Your task to perform on an android device: star an email in the gmail app Image 0: 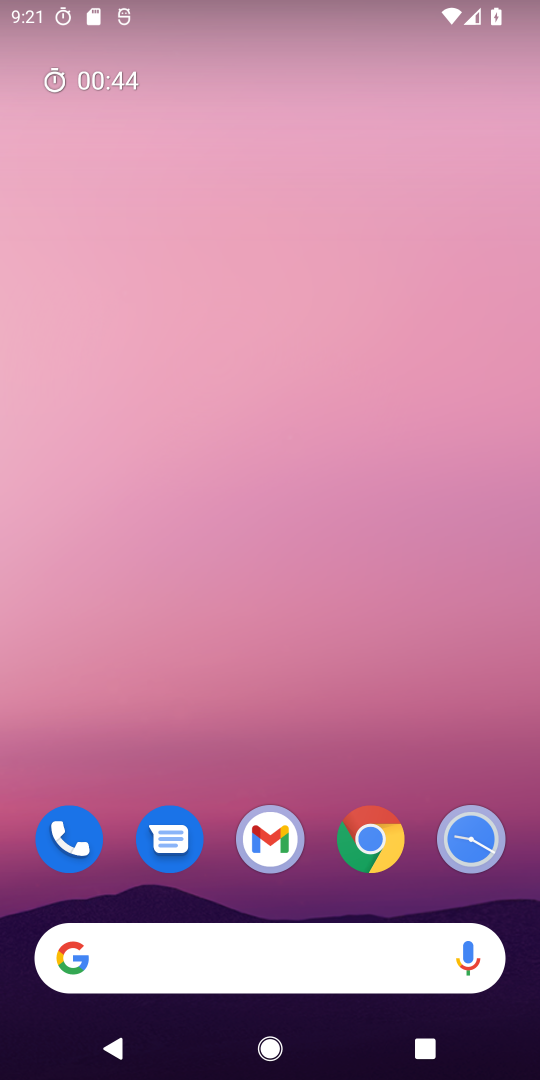
Step 0: click (270, 831)
Your task to perform on an android device: star an email in the gmail app Image 1: 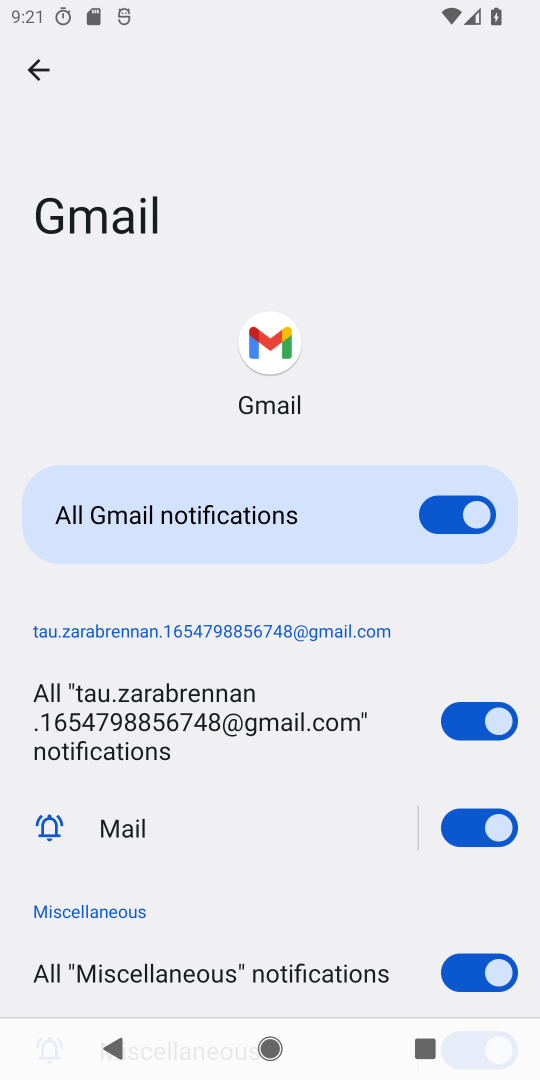
Step 1: click (23, 73)
Your task to perform on an android device: star an email in the gmail app Image 2: 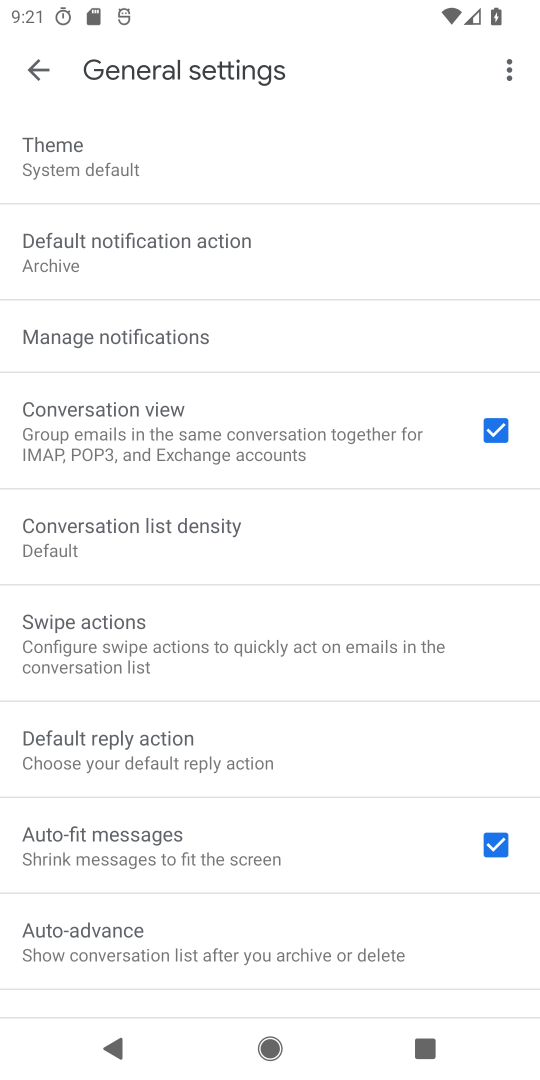
Step 2: click (39, 76)
Your task to perform on an android device: star an email in the gmail app Image 3: 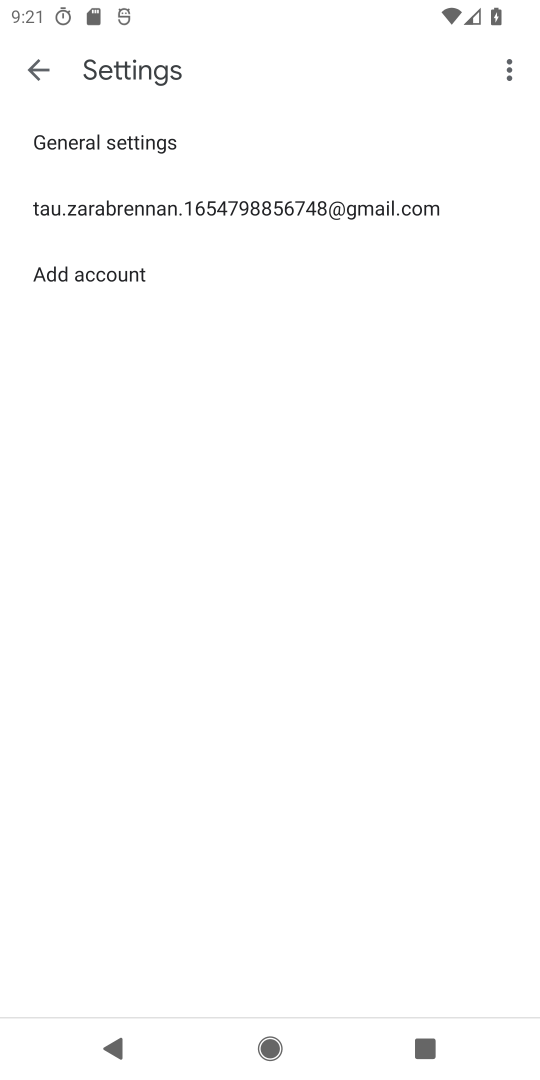
Step 3: click (27, 70)
Your task to perform on an android device: star an email in the gmail app Image 4: 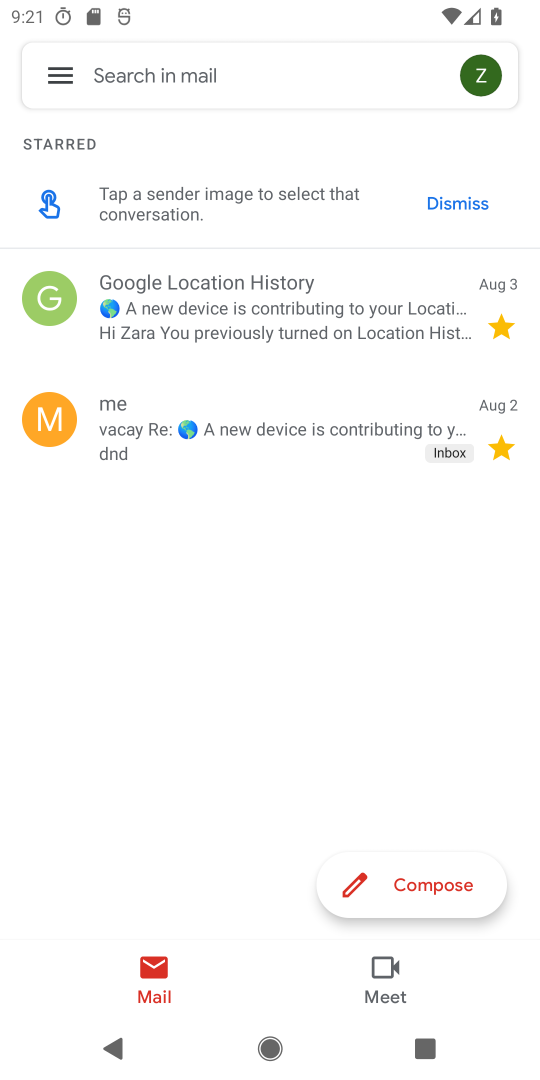
Step 4: click (58, 66)
Your task to perform on an android device: star an email in the gmail app Image 5: 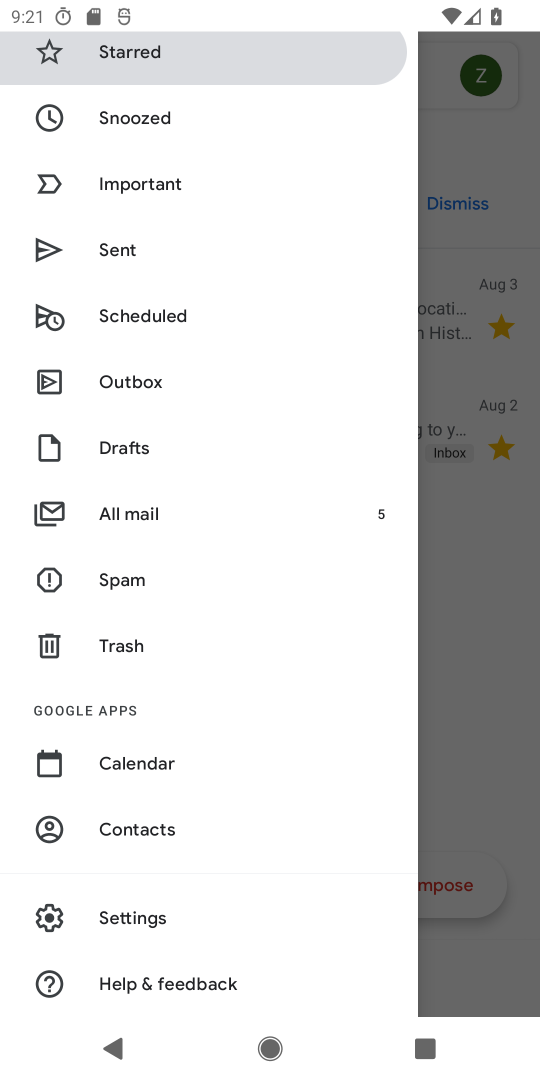
Step 5: click (169, 510)
Your task to perform on an android device: star an email in the gmail app Image 6: 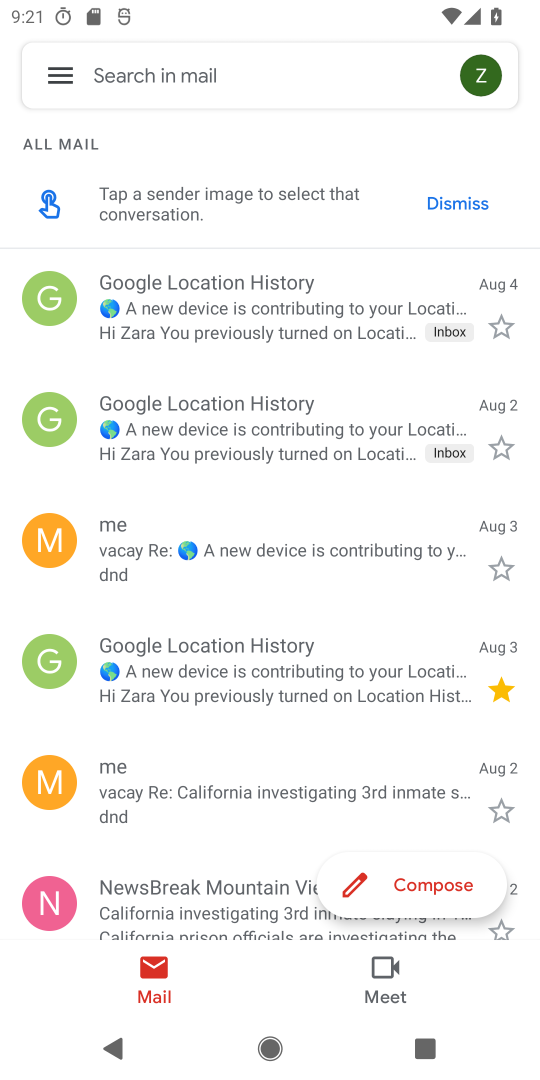
Step 6: click (505, 563)
Your task to perform on an android device: star an email in the gmail app Image 7: 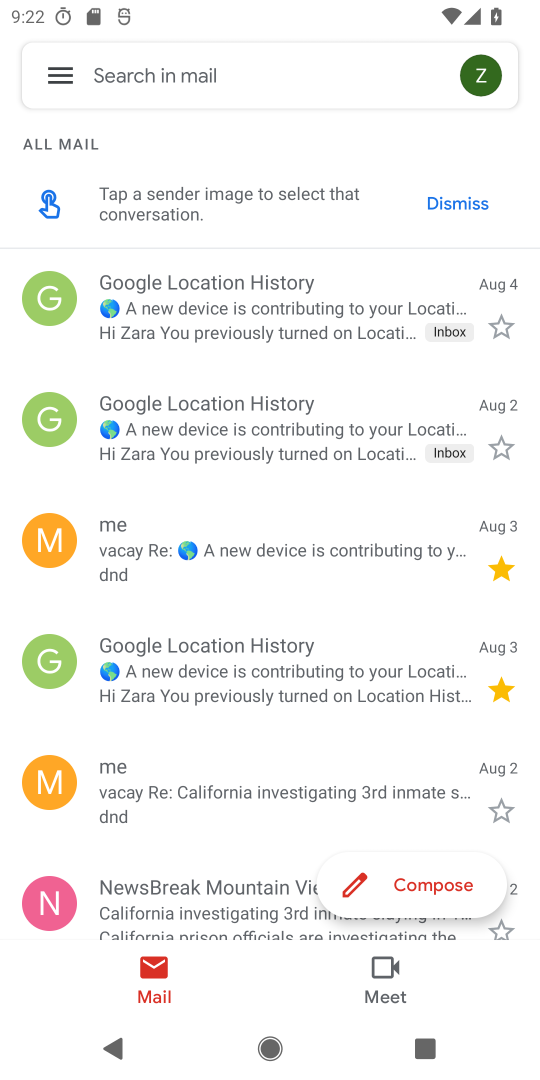
Step 7: task complete